Your task to perform on an android device: turn on bluetooth scan Image 0: 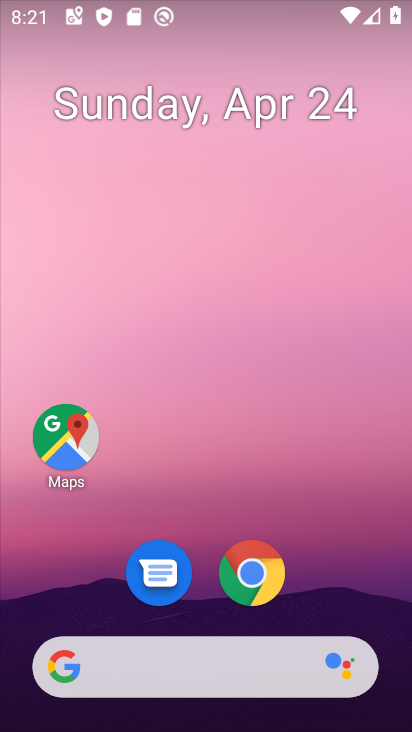
Step 0: drag from (333, 545) to (283, 105)
Your task to perform on an android device: turn on bluetooth scan Image 1: 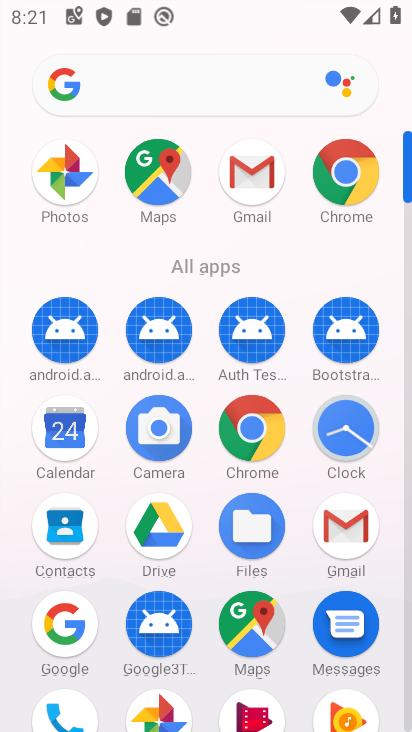
Step 1: drag from (209, 560) to (214, 230)
Your task to perform on an android device: turn on bluetooth scan Image 2: 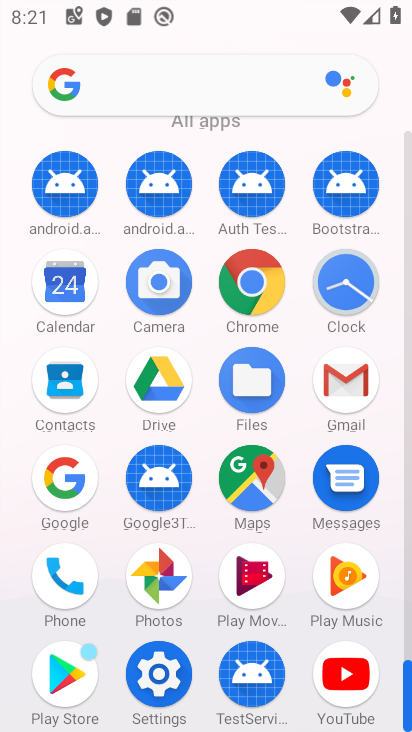
Step 2: click (156, 693)
Your task to perform on an android device: turn on bluetooth scan Image 3: 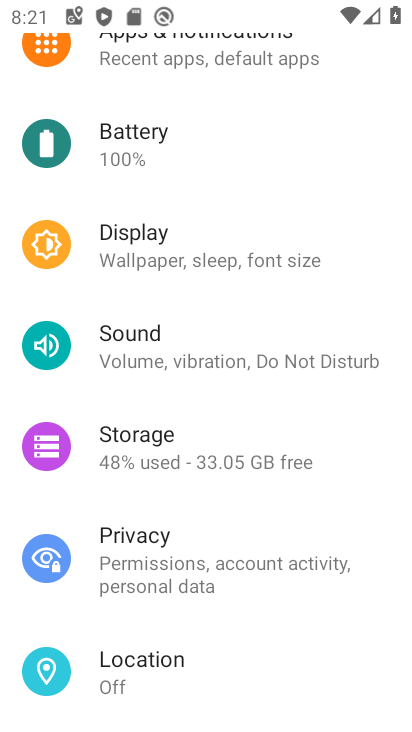
Step 3: click (140, 678)
Your task to perform on an android device: turn on bluetooth scan Image 4: 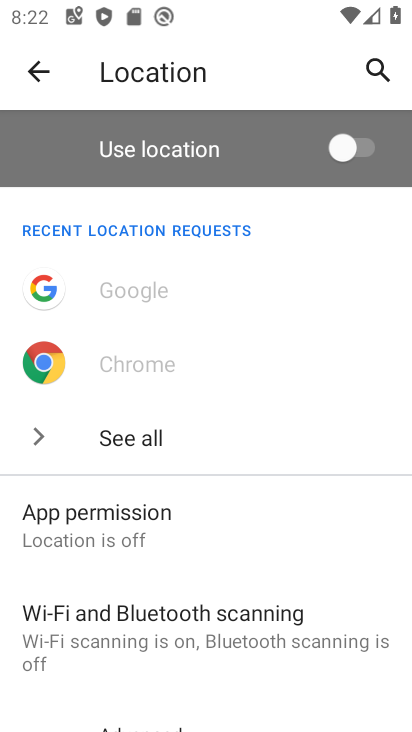
Step 4: click (200, 632)
Your task to perform on an android device: turn on bluetooth scan Image 5: 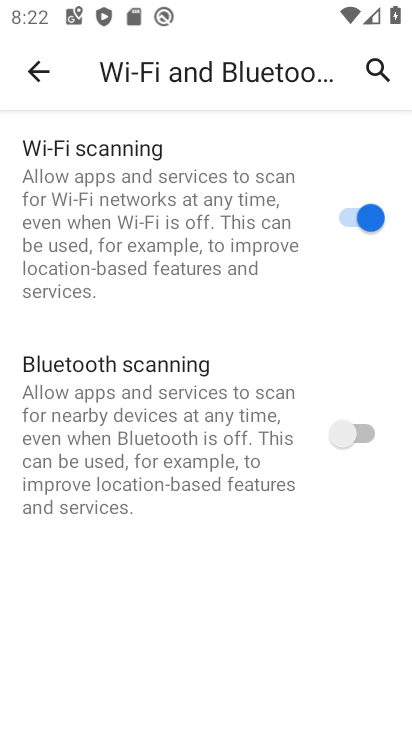
Step 5: click (347, 443)
Your task to perform on an android device: turn on bluetooth scan Image 6: 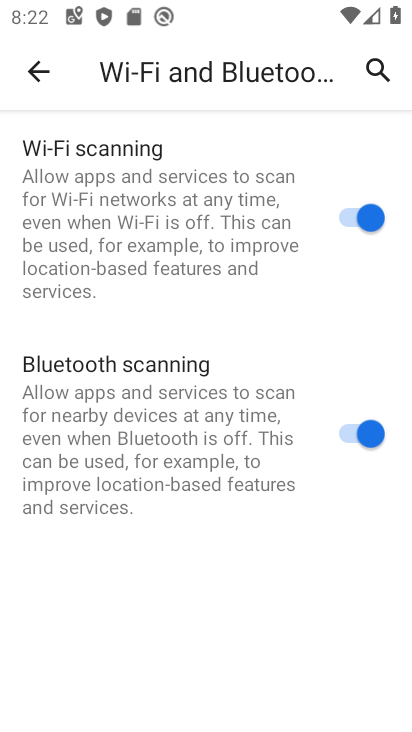
Step 6: task complete